Your task to perform on an android device: search for starred emails in the gmail app Image 0: 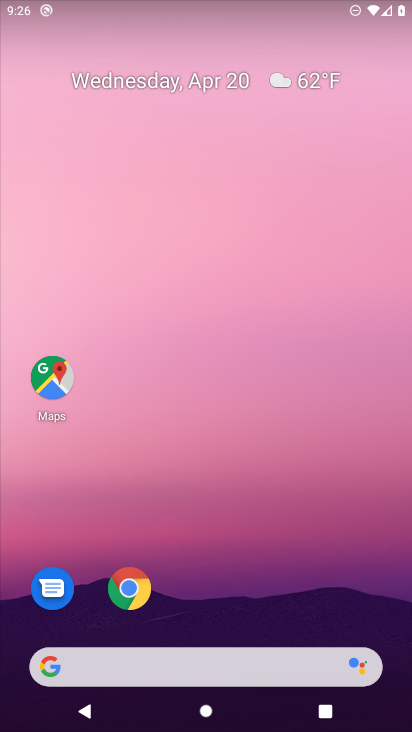
Step 0: drag from (234, 617) to (248, 19)
Your task to perform on an android device: search for starred emails in the gmail app Image 1: 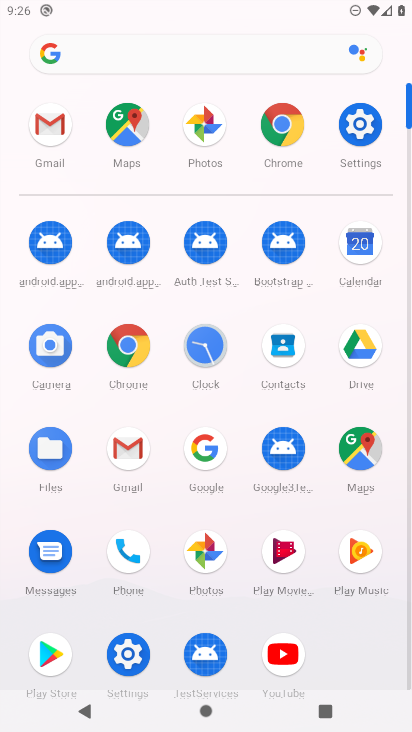
Step 1: click (46, 115)
Your task to perform on an android device: search for starred emails in the gmail app Image 2: 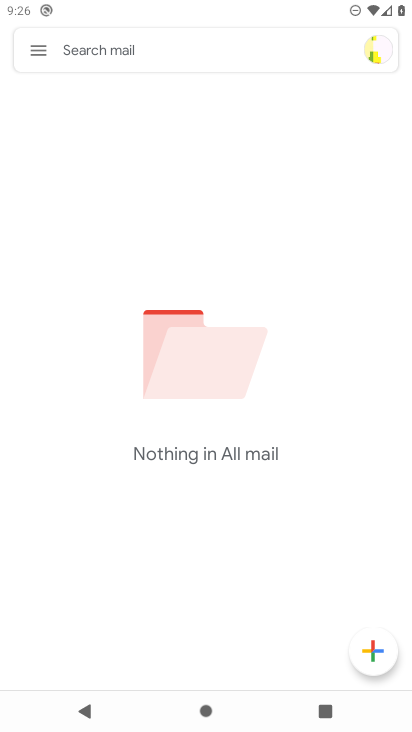
Step 2: click (33, 48)
Your task to perform on an android device: search for starred emails in the gmail app Image 3: 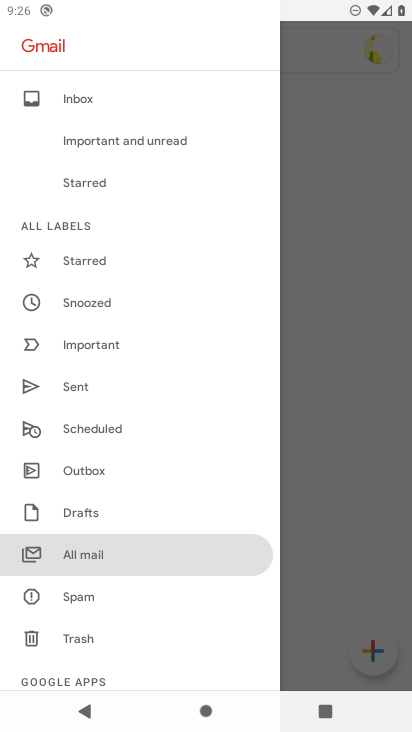
Step 3: click (119, 177)
Your task to perform on an android device: search for starred emails in the gmail app Image 4: 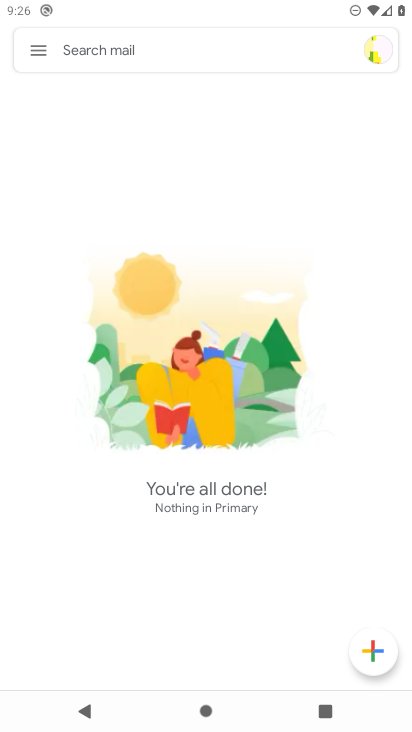
Step 4: task complete